Your task to perform on an android device: Open Youtube and go to the subscriptions tab Image 0: 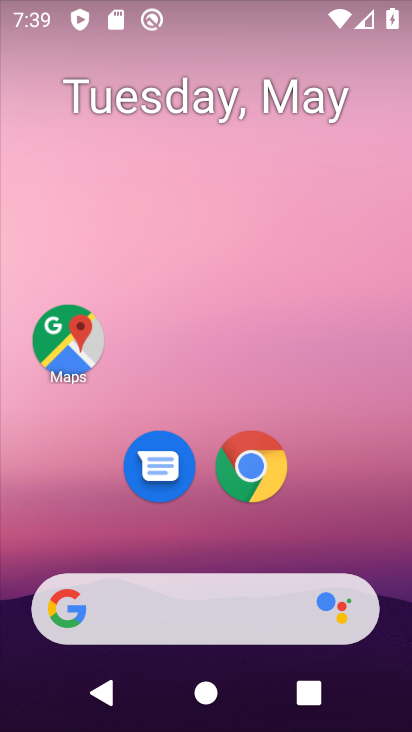
Step 0: drag from (255, 580) to (326, 1)
Your task to perform on an android device: Open Youtube and go to the subscriptions tab Image 1: 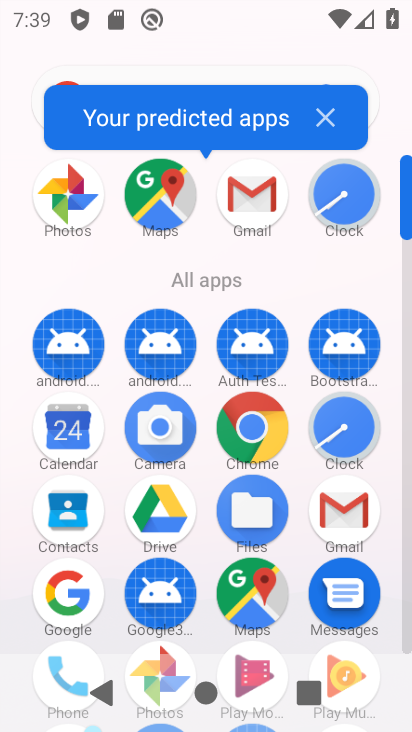
Step 1: drag from (292, 617) to (300, 75)
Your task to perform on an android device: Open Youtube and go to the subscriptions tab Image 2: 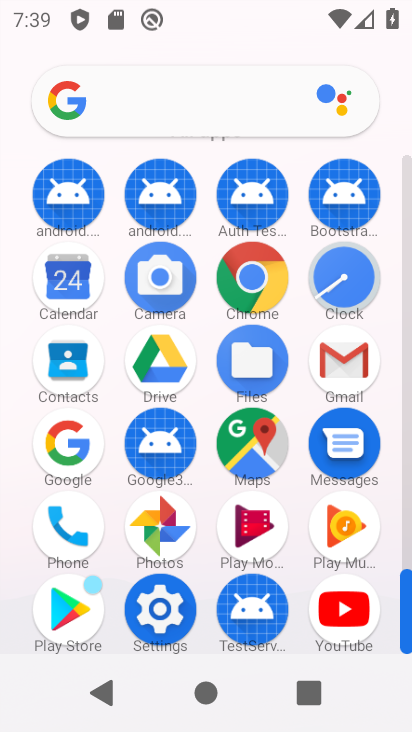
Step 2: click (359, 605)
Your task to perform on an android device: Open Youtube and go to the subscriptions tab Image 3: 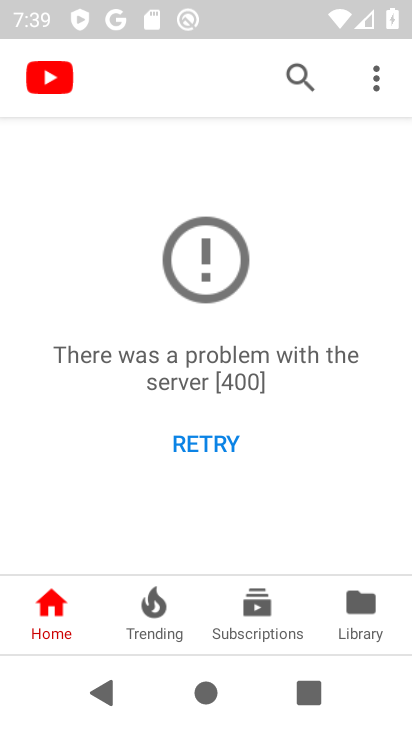
Step 3: click (279, 613)
Your task to perform on an android device: Open Youtube and go to the subscriptions tab Image 4: 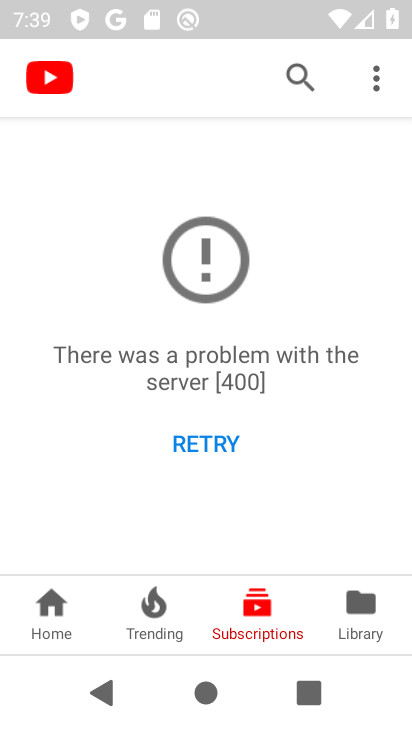
Step 4: task complete